Your task to perform on an android device: What's on my calendar today? Image 0: 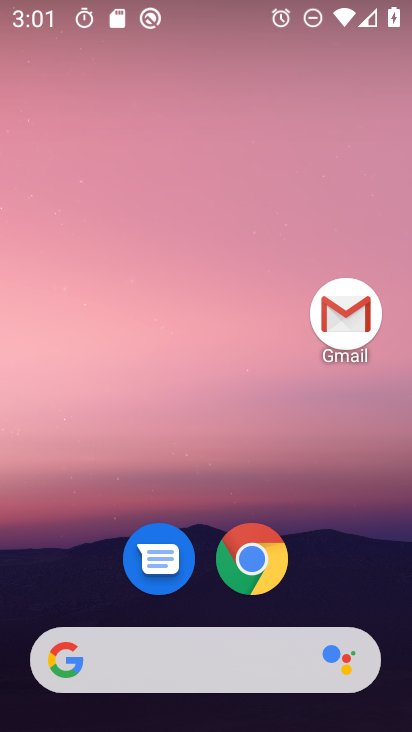
Step 0: drag from (377, 585) to (399, 183)
Your task to perform on an android device: What's on my calendar today? Image 1: 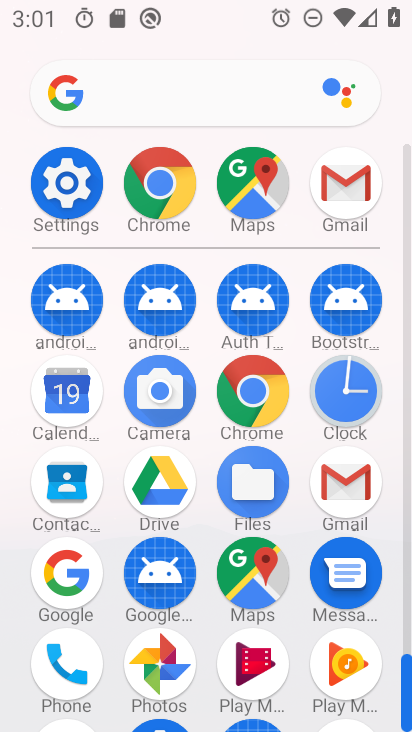
Step 1: click (78, 388)
Your task to perform on an android device: What's on my calendar today? Image 2: 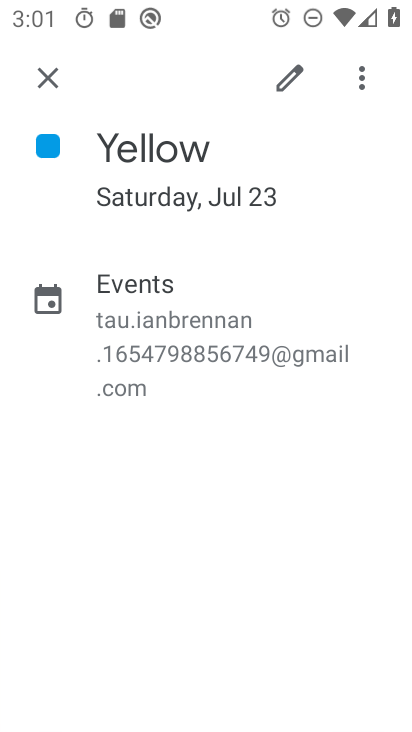
Step 2: press back button
Your task to perform on an android device: What's on my calendar today? Image 3: 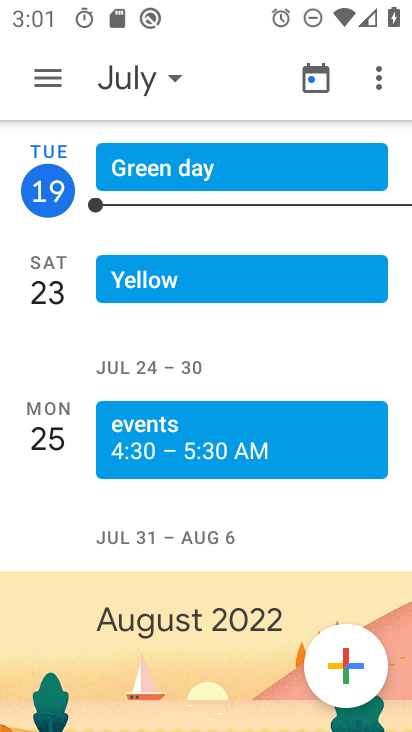
Step 3: click (236, 169)
Your task to perform on an android device: What's on my calendar today? Image 4: 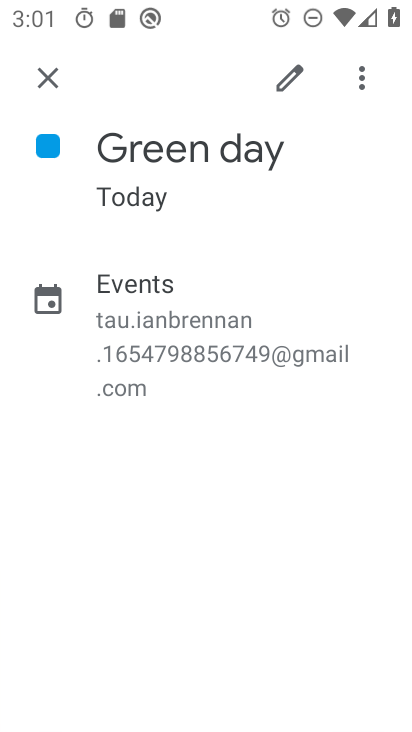
Step 4: task complete